Your task to perform on an android device: delete location history Image 0: 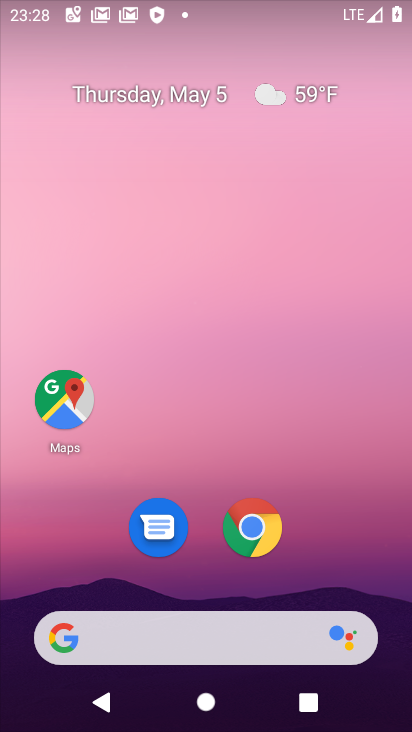
Step 0: drag from (220, 237) to (52, 111)
Your task to perform on an android device: delete location history Image 1: 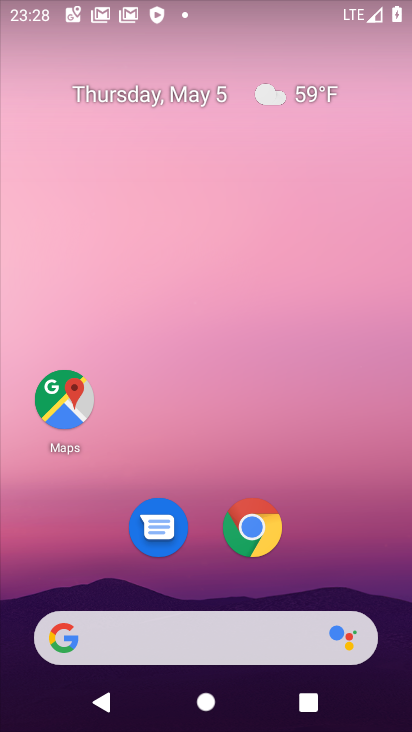
Step 1: drag from (214, 585) to (237, 0)
Your task to perform on an android device: delete location history Image 2: 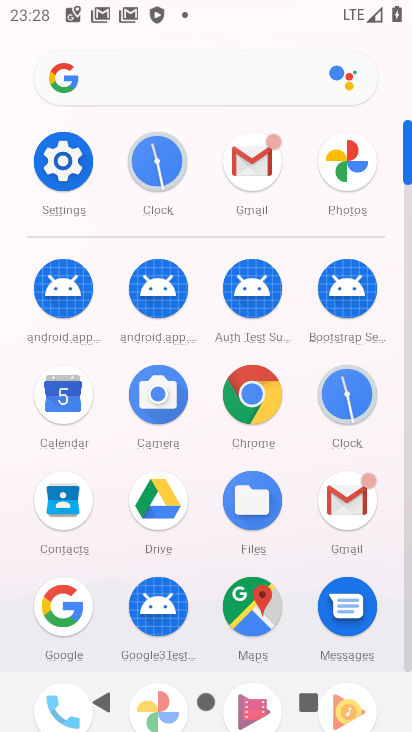
Step 2: click (283, 620)
Your task to perform on an android device: delete location history Image 3: 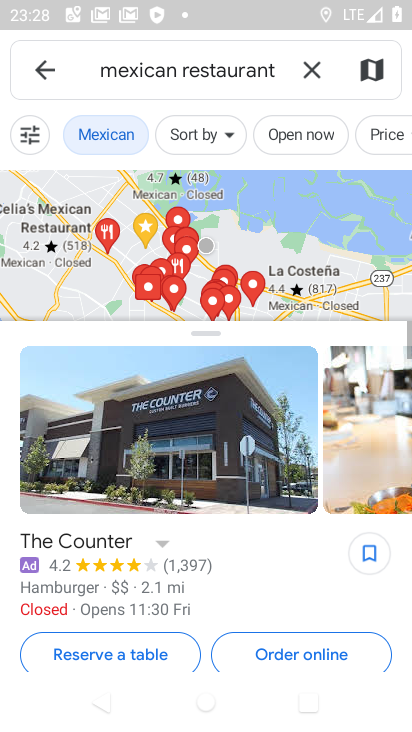
Step 3: click (57, 64)
Your task to perform on an android device: delete location history Image 4: 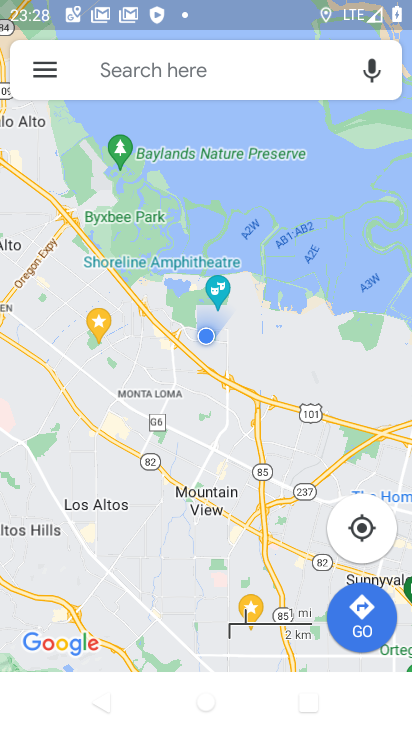
Step 4: click (57, 64)
Your task to perform on an android device: delete location history Image 5: 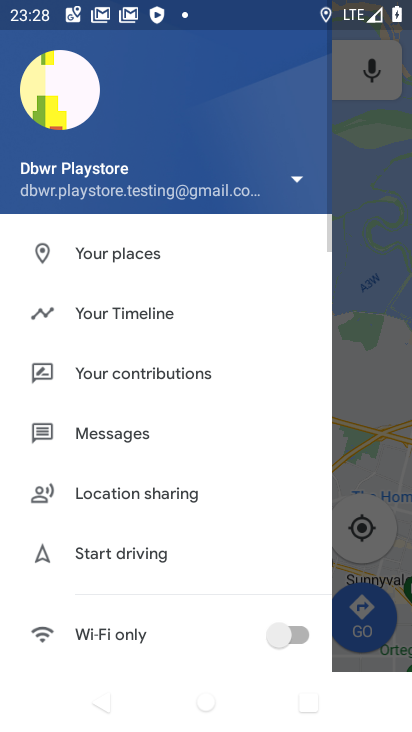
Step 5: click (123, 325)
Your task to perform on an android device: delete location history Image 6: 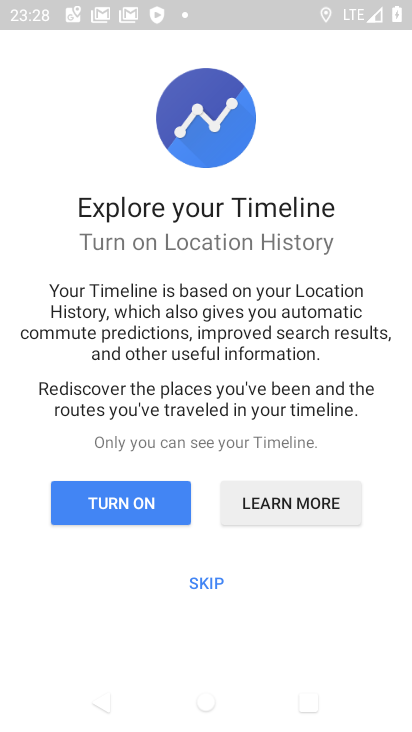
Step 6: click (205, 582)
Your task to perform on an android device: delete location history Image 7: 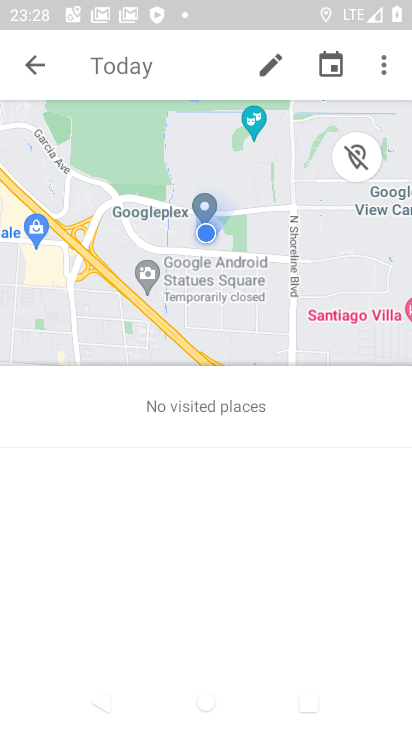
Step 7: click (379, 79)
Your task to perform on an android device: delete location history Image 8: 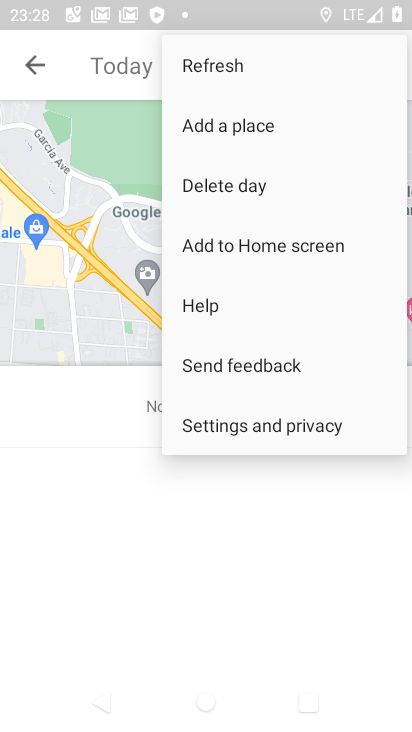
Step 8: click (280, 435)
Your task to perform on an android device: delete location history Image 9: 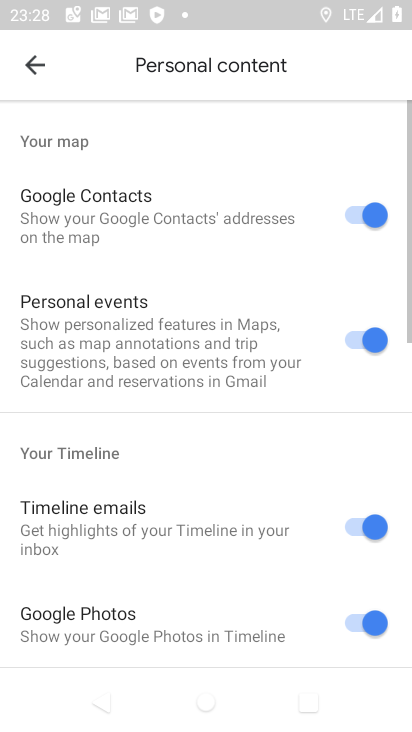
Step 9: drag from (208, 556) to (248, 150)
Your task to perform on an android device: delete location history Image 10: 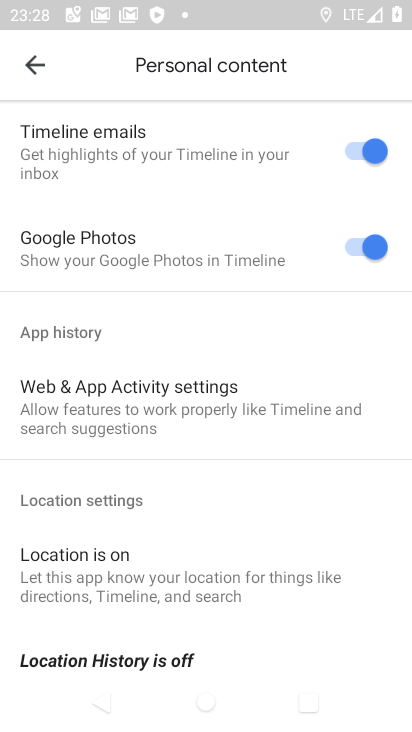
Step 10: drag from (208, 474) to (244, 175)
Your task to perform on an android device: delete location history Image 11: 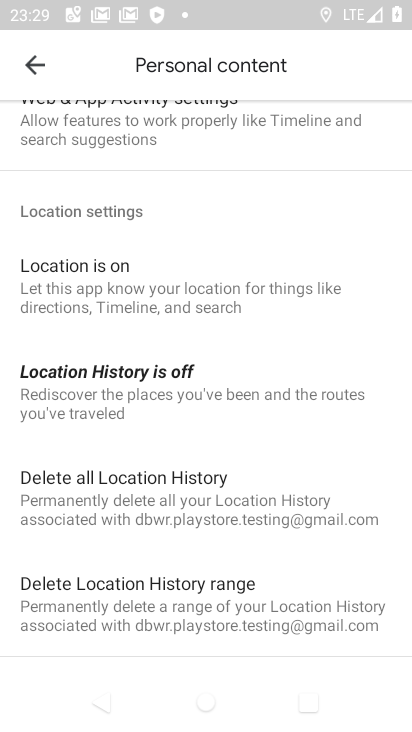
Step 11: drag from (213, 527) to (269, 163)
Your task to perform on an android device: delete location history Image 12: 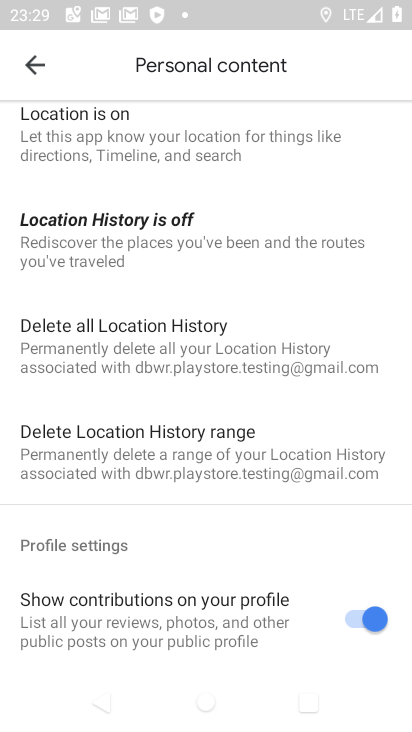
Step 12: click (205, 372)
Your task to perform on an android device: delete location history Image 13: 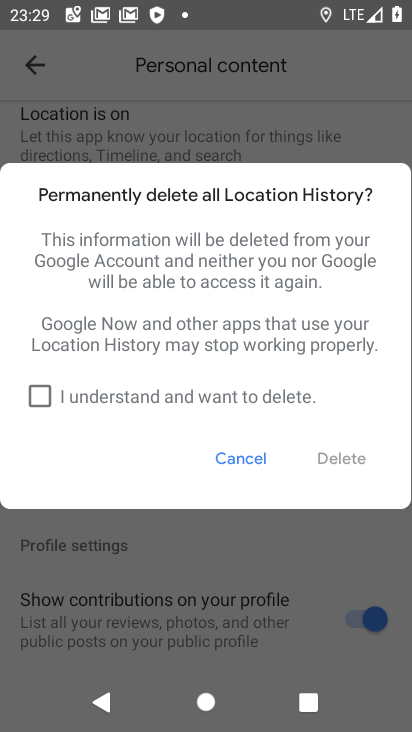
Step 13: click (143, 396)
Your task to perform on an android device: delete location history Image 14: 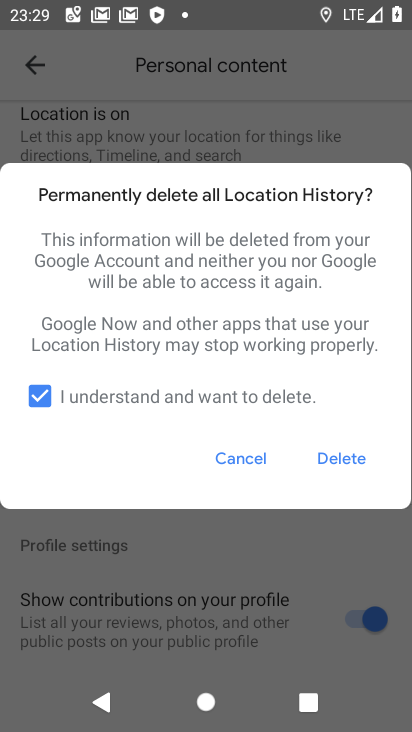
Step 14: click (345, 466)
Your task to perform on an android device: delete location history Image 15: 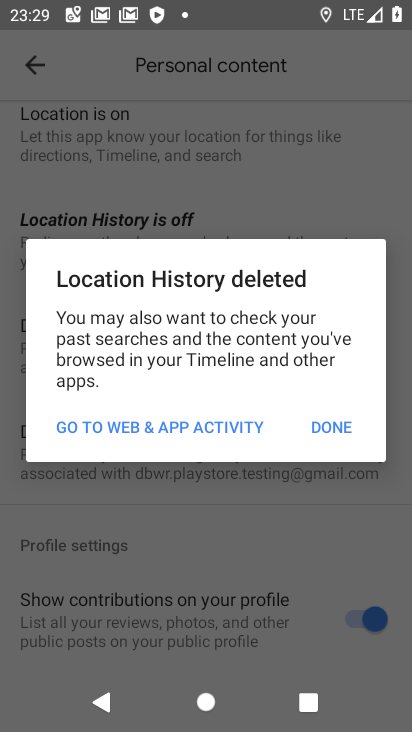
Step 15: click (316, 422)
Your task to perform on an android device: delete location history Image 16: 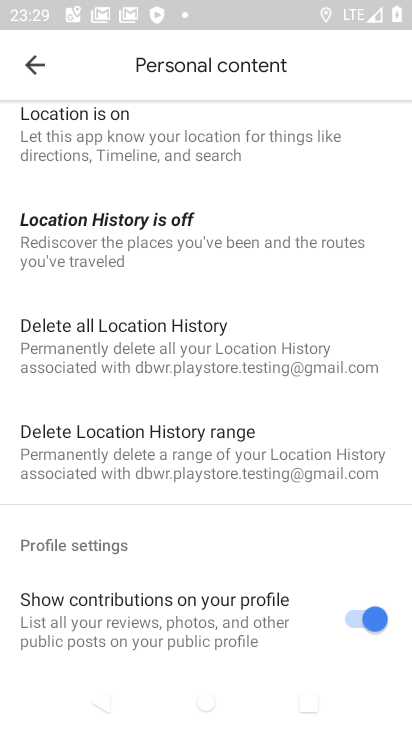
Step 16: task complete